Your task to perform on an android device: turn off location history Image 0: 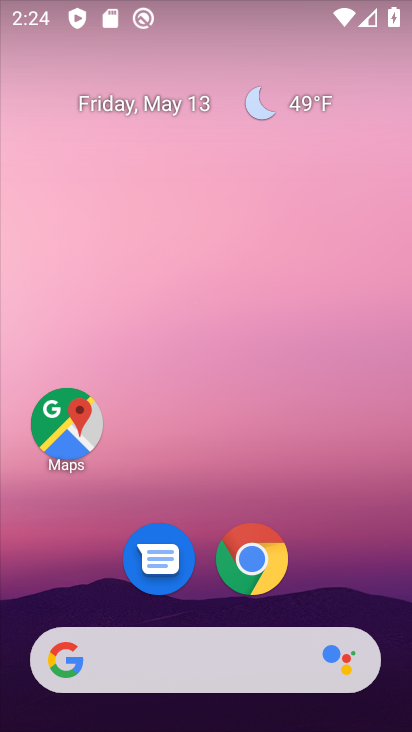
Step 0: click (65, 419)
Your task to perform on an android device: turn off location history Image 1: 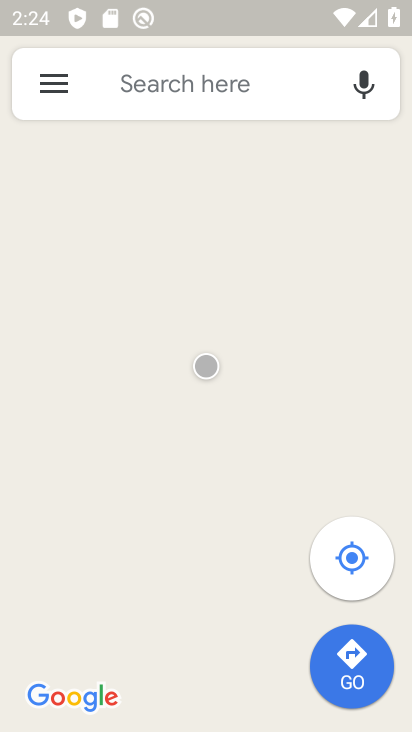
Step 1: click (56, 82)
Your task to perform on an android device: turn off location history Image 2: 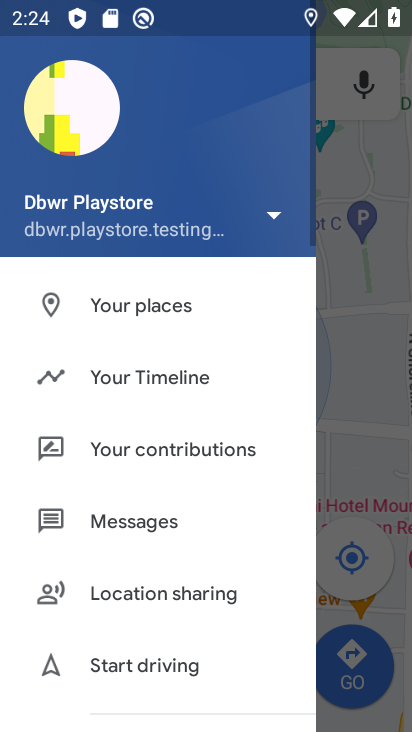
Step 2: drag from (265, 621) to (201, 84)
Your task to perform on an android device: turn off location history Image 3: 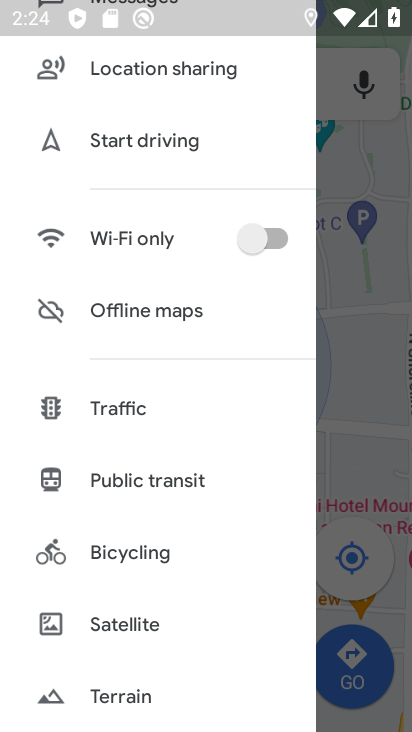
Step 3: drag from (215, 641) to (233, 114)
Your task to perform on an android device: turn off location history Image 4: 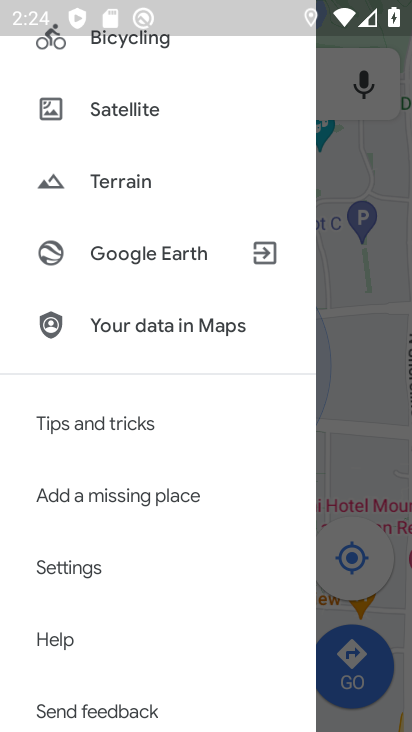
Step 4: click (60, 570)
Your task to perform on an android device: turn off location history Image 5: 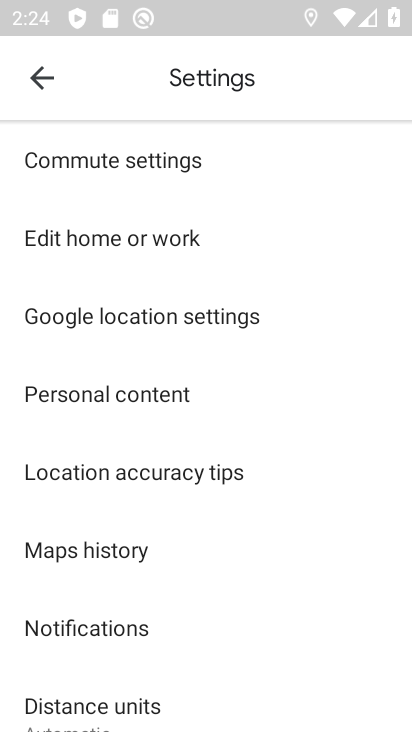
Step 5: click (107, 397)
Your task to perform on an android device: turn off location history Image 6: 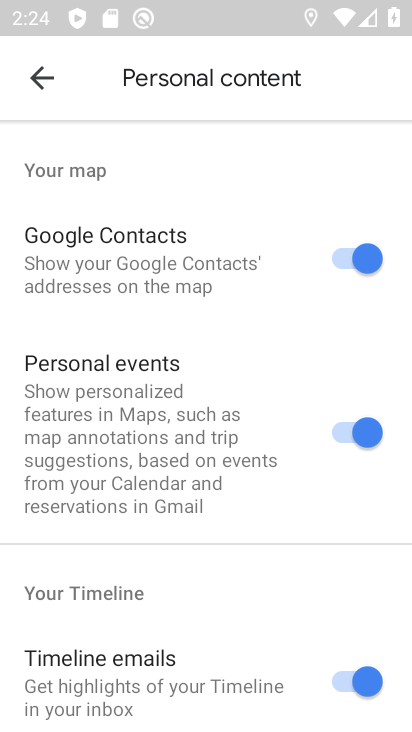
Step 6: task complete